Your task to perform on an android device: turn on priority inbox in the gmail app Image 0: 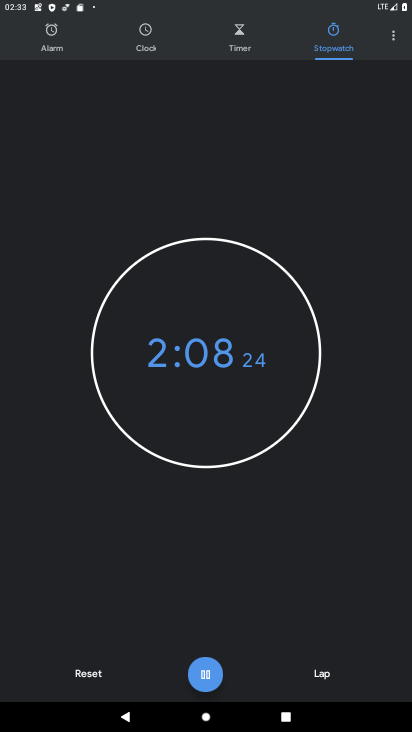
Step 0: press home button
Your task to perform on an android device: turn on priority inbox in the gmail app Image 1: 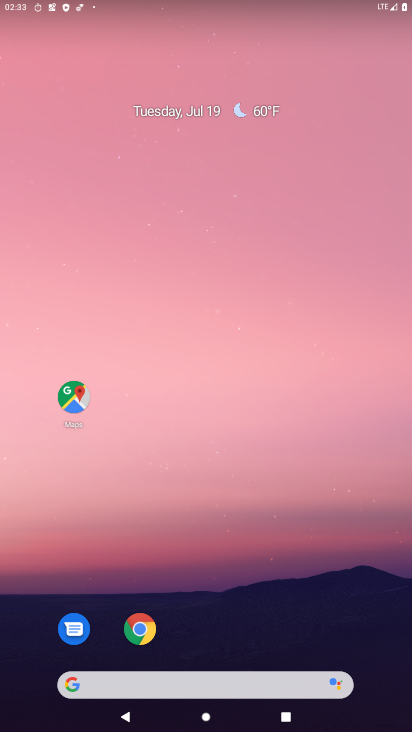
Step 1: drag from (171, 625) to (177, 157)
Your task to perform on an android device: turn on priority inbox in the gmail app Image 2: 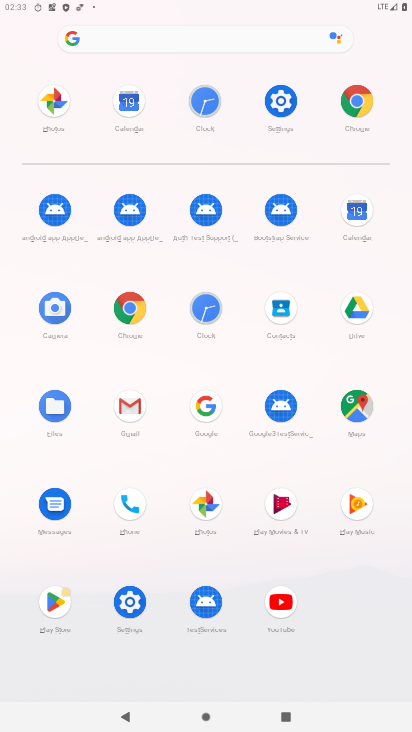
Step 2: click (134, 406)
Your task to perform on an android device: turn on priority inbox in the gmail app Image 3: 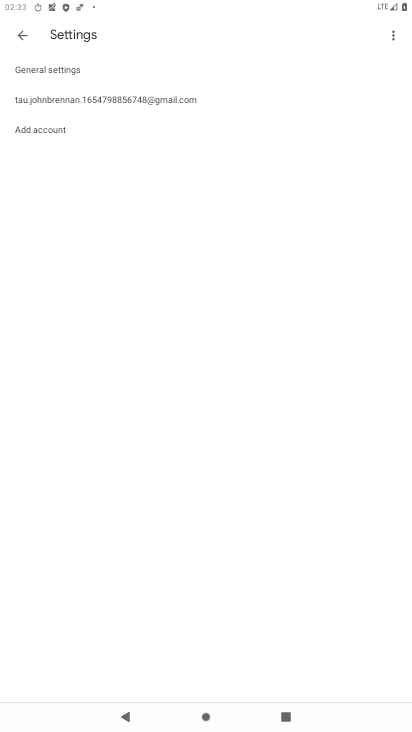
Step 3: click (147, 105)
Your task to perform on an android device: turn on priority inbox in the gmail app Image 4: 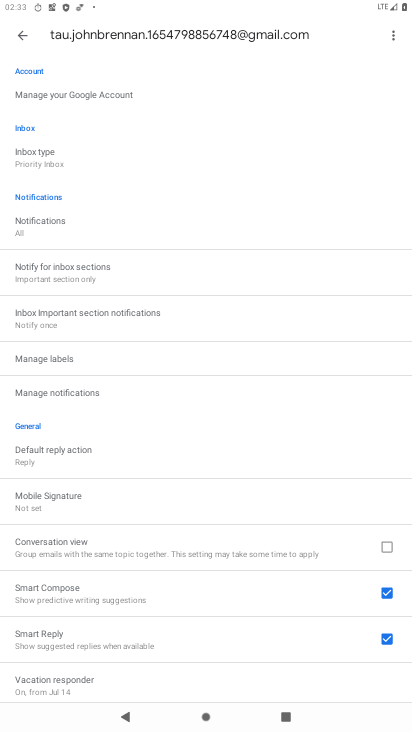
Step 4: click (42, 163)
Your task to perform on an android device: turn on priority inbox in the gmail app Image 5: 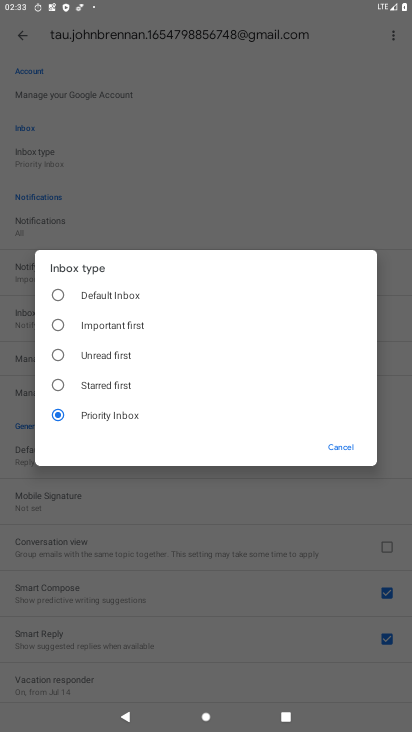
Step 5: task complete